Your task to perform on an android device: Open accessibility settings Image 0: 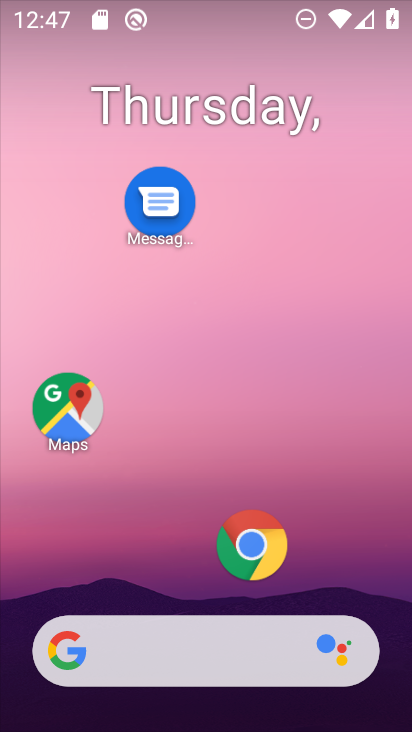
Step 0: drag from (205, 581) to (254, 179)
Your task to perform on an android device: Open accessibility settings Image 1: 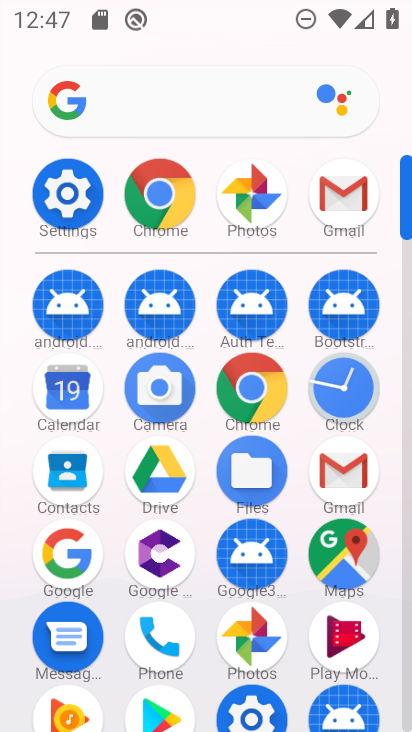
Step 1: click (46, 197)
Your task to perform on an android device: Open accessibility settings Image 2: 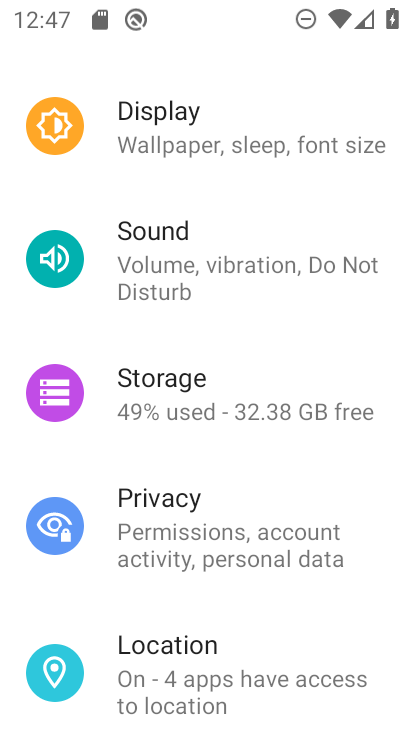
Step 2: drag from (201, 569) to (245, 181)
Your task to perform on an android device: Open accessibility settings Image 3: 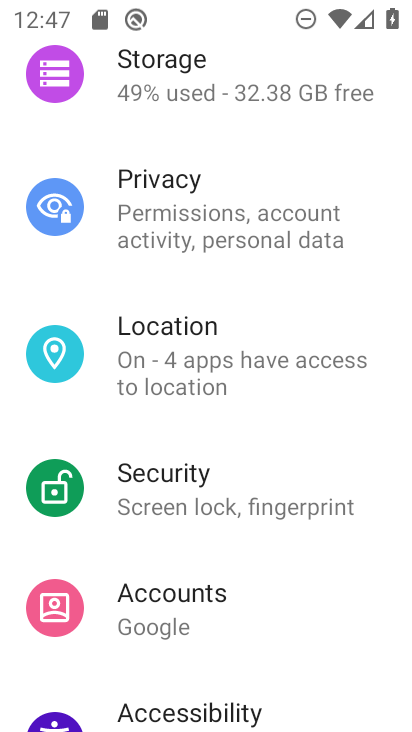
Step 3: drag from (266, 543) to (277, 253)
Your task to perform on an android device: Open accessibility settings Image 4: 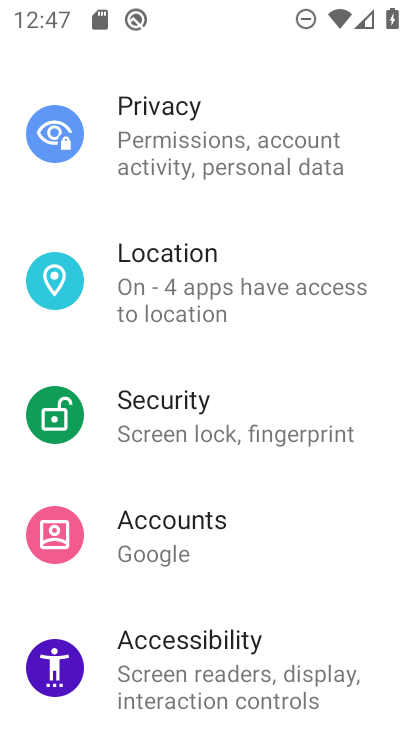
Step 4: drag from (282, 411) to (282, 289)
Your task to perform on an android device: Open accessibility settings Image 5: 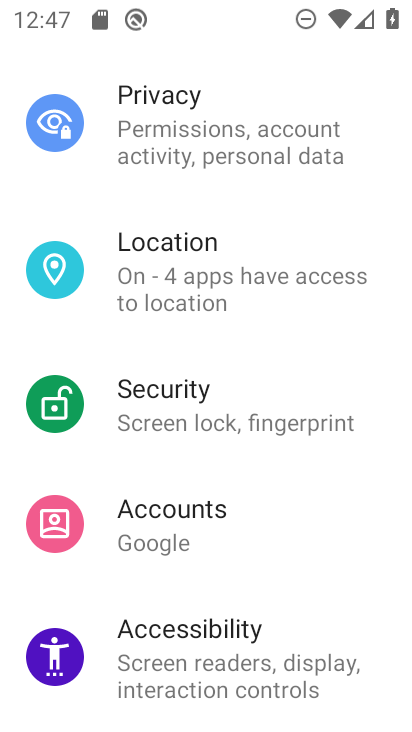
Step 5: click (149, 666)
Your task to perform on an android device: Open accessibility settings Image 6: 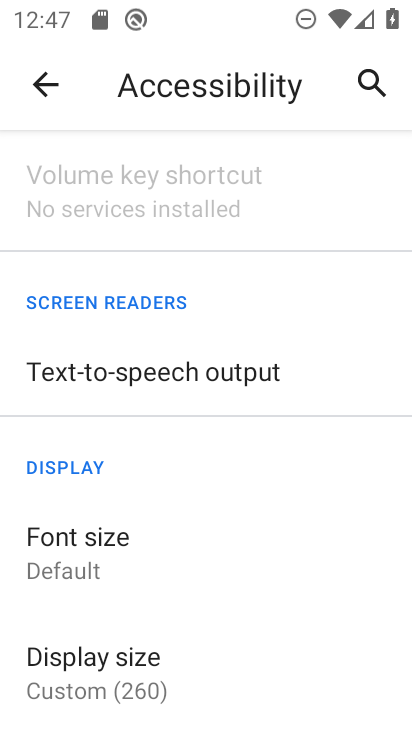
Step 6: task complete